Your task to perform on an android device: check data usage Image 0: 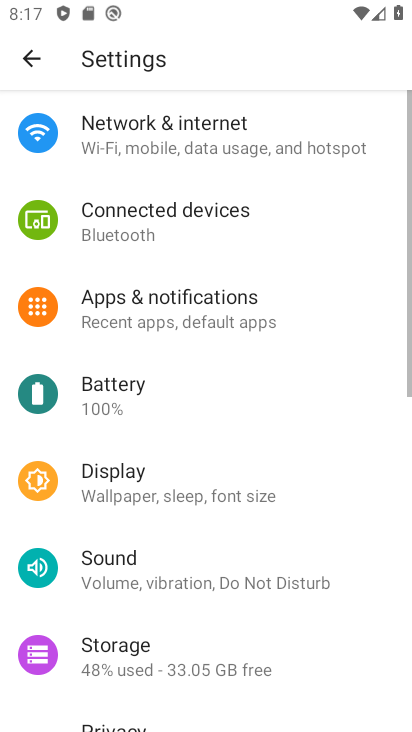
Step 0: click (218, 164)
Your task to perform on an android device: check data usage Image 1: 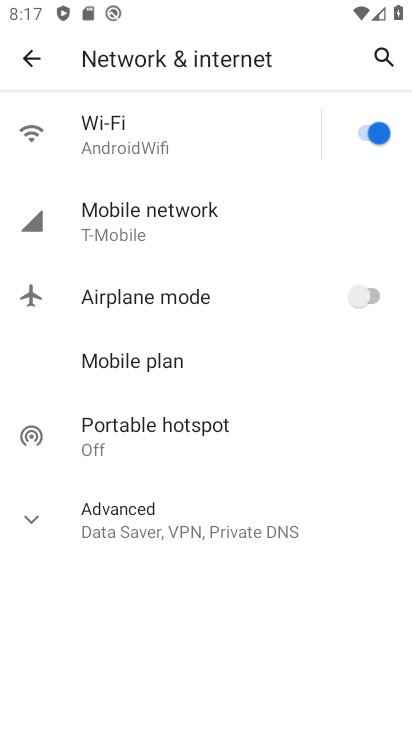
Step 1: click (171, 239)
Your task to perform on an android device: check data usage Image 2: 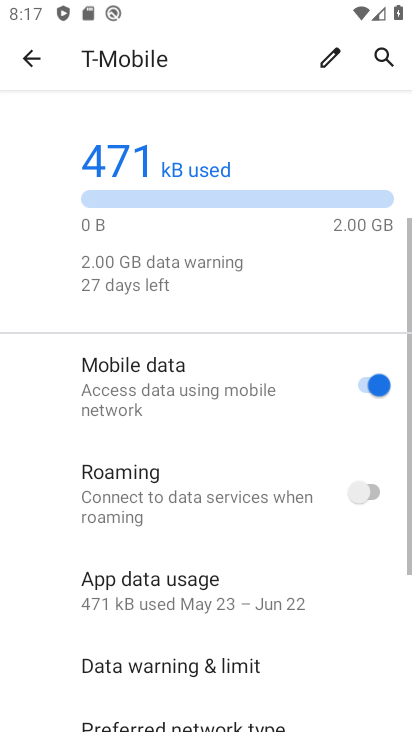
Step 2: task complete